Your task to perform on an android device: turn off wifi Image 0: 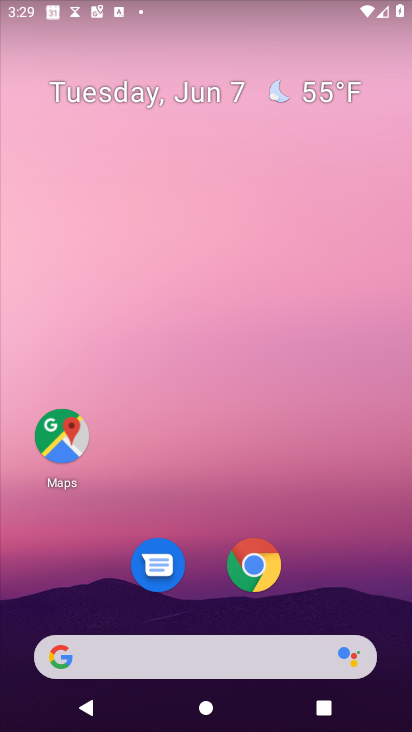
Step 0: drag from (265, 650) to (314, 0)
Your task to perform on an android device: turn off wifi Image 1: 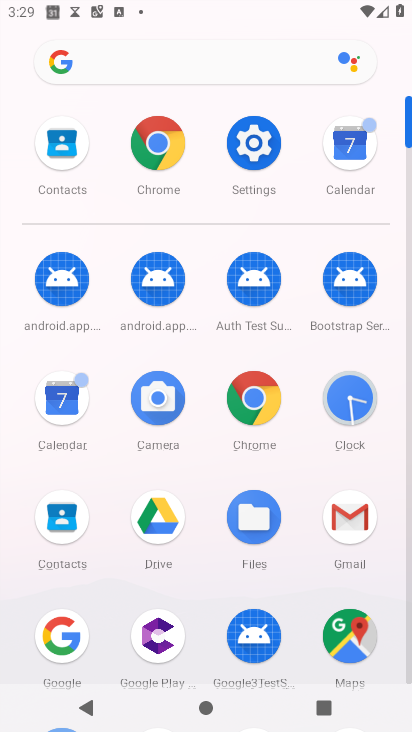
Step 1: click (259, 152)
Your task to perform on an android device: turn off wifi Image 2: 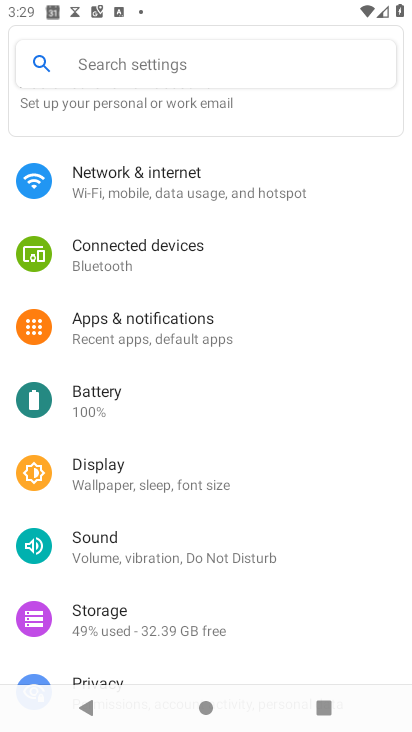
Step 2: drag from (242, 246) to (269, 539)
Your task to perform on an android device: turn off wifi Image 3: 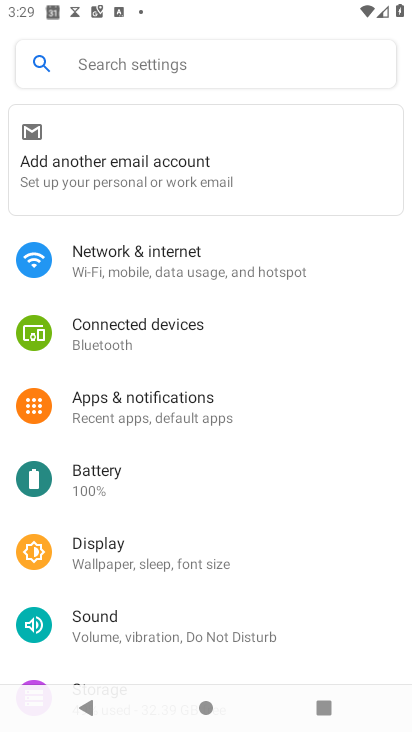
Step 3: click (234, 277)
Your task to perform on an android device: turn off wifi Image 4: 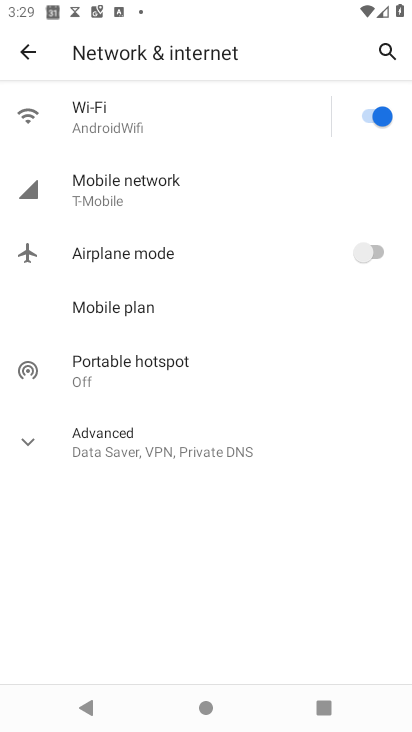
Step 4: click (374, 112)
Your task to perform on an android device: turn off wifi Image 5: 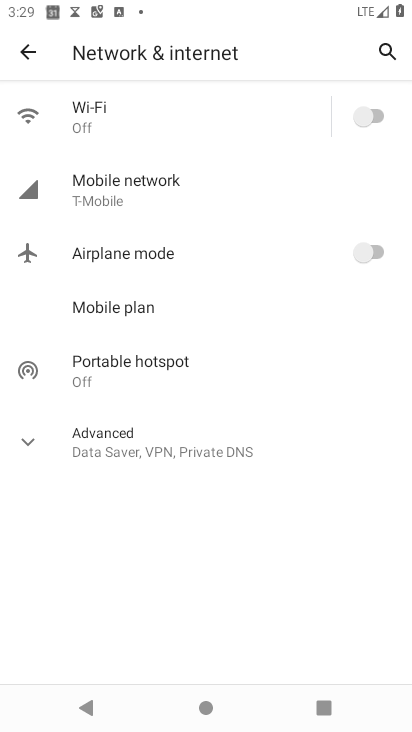
Step 5: task complete